Your task to perform on an android device: Go to ESPN.com Image 0: 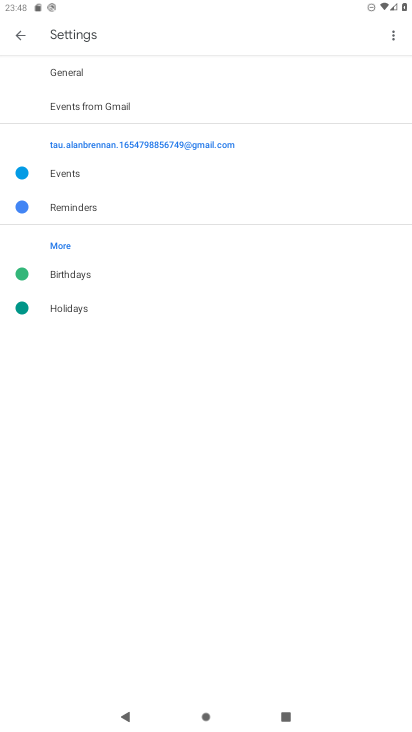
Step 0: press home button
Your task to perform on an android device: Go to ESPN.com Image 1: 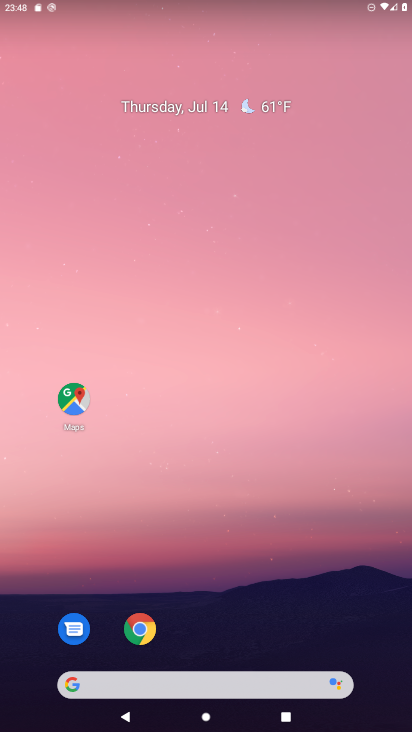
Step 1: click (145, 644)
Your task to perform on an android device: Go to ESPN.com Image 2: 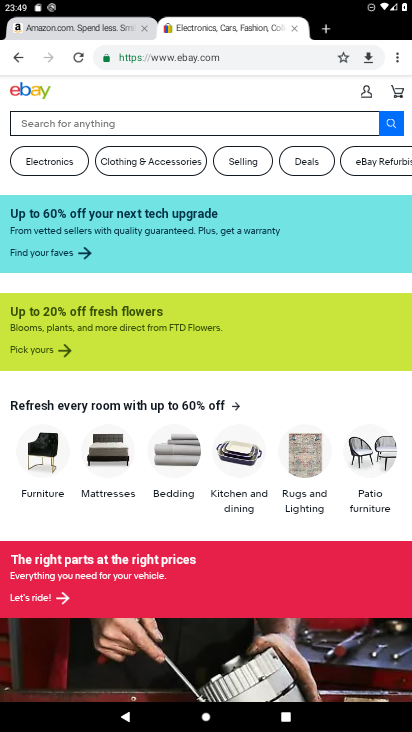
Step 2: click (327, 27)
Your task to perform on an android device: Go to ESPN.com Image 3: 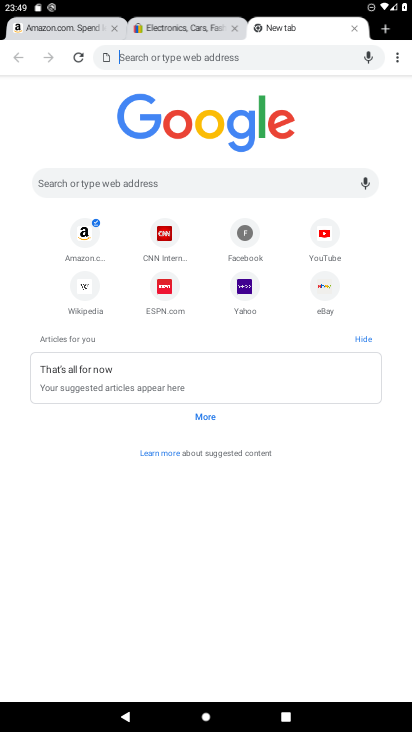
Step 3: click (161, 279)
Your task to perform on an android device: Go to ESPN.com Image 4: 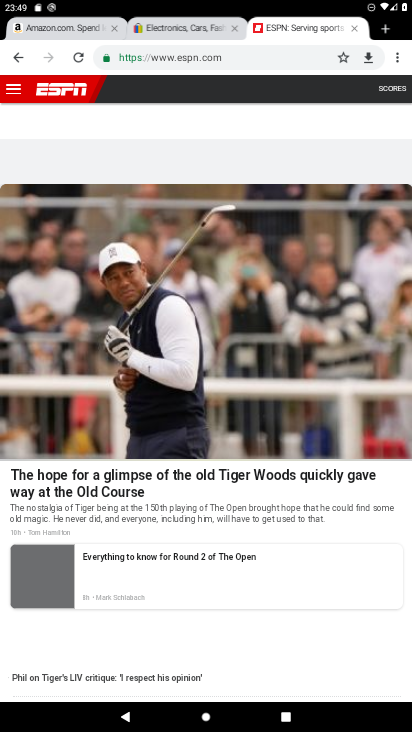
Step 4: task complete